Your task to perform on an android device: Go to Maps Image 0: 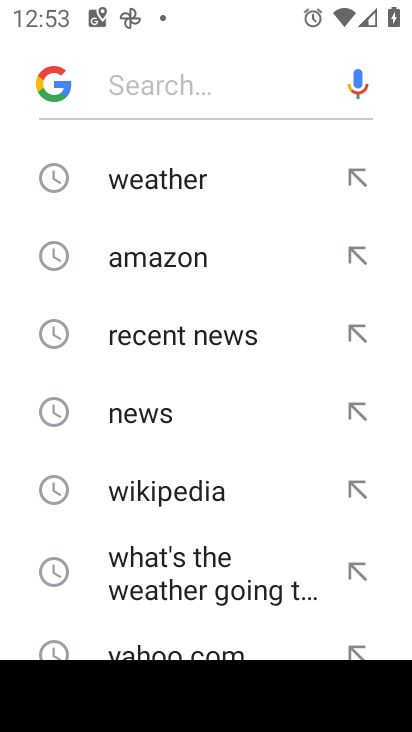
Step 0: press home button
Your task to perform on an android device: Go to Maps Image 1: 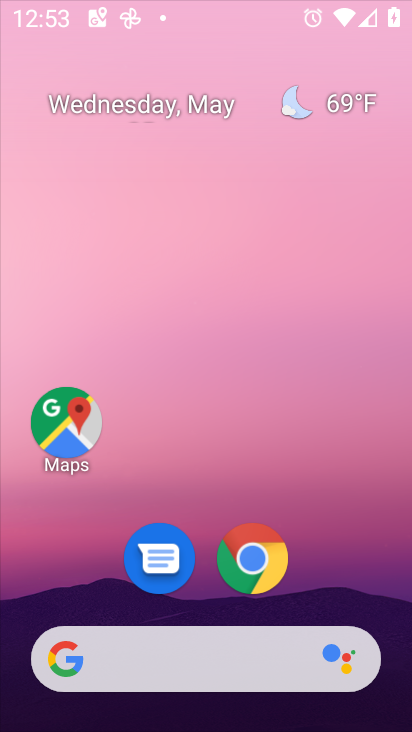
Step 1: press home button
Your task to perform on an android device: Go to Maps Image 2: 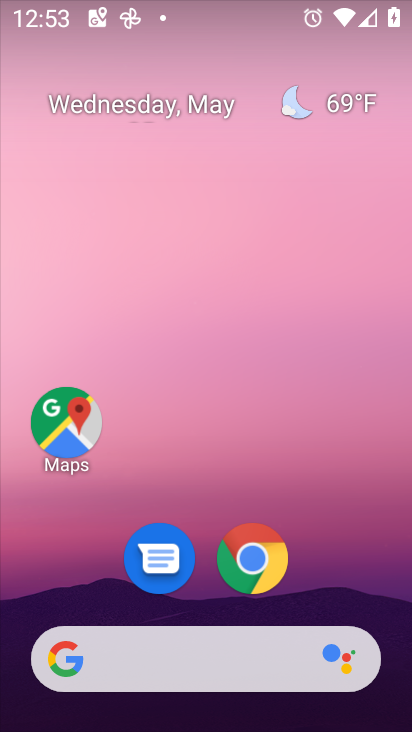
Step 2: drag from (373, 603) to (305, 11)
Your task to perform on an android device: Go to Maps Image 3: 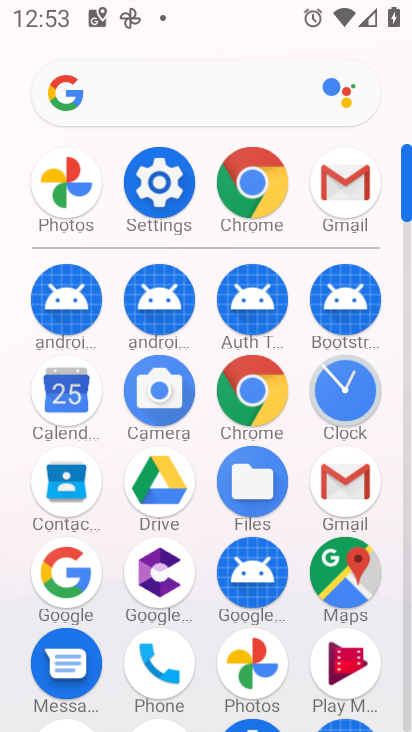
Step 3: click (369, 576)
Your task to perform on an android device: Go to Maps Image 4: 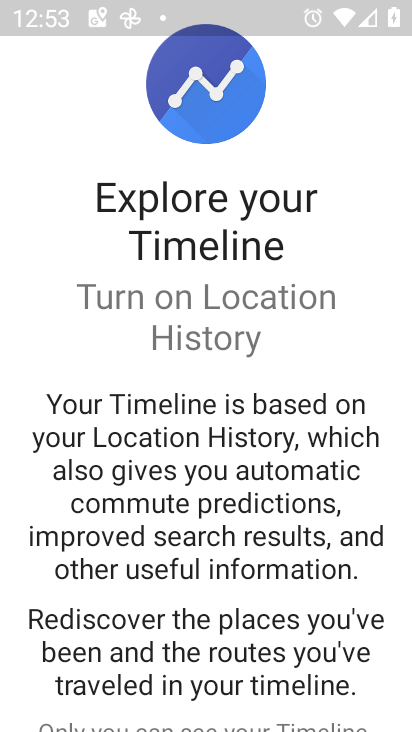
Step 4: press back button
Your task to perform on an android device: Go to Maps Image 5: 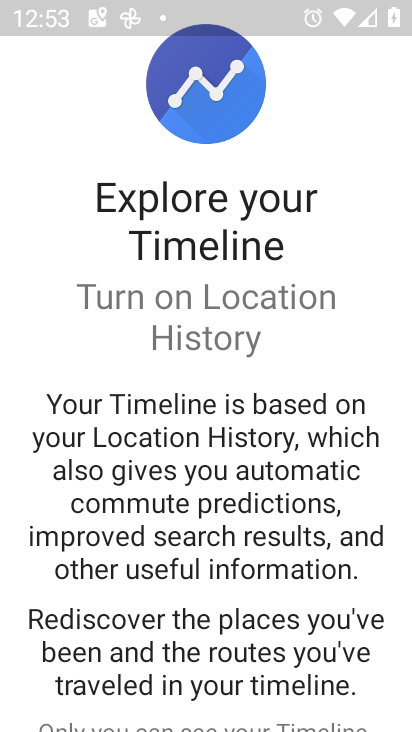
Step 5: press back button
Your task to perform on an android device: Go to Maps Image 6: 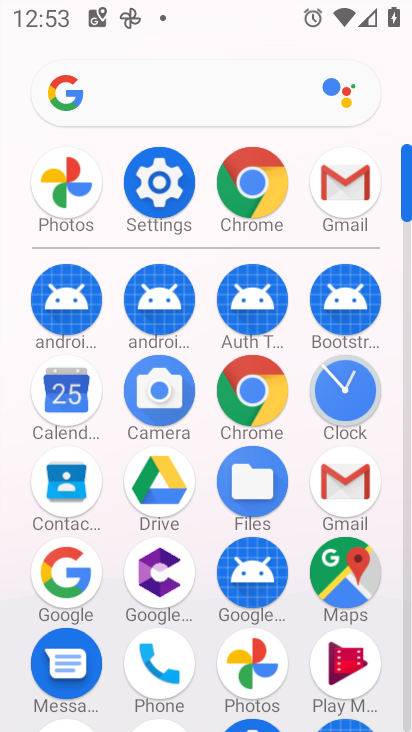
Step 6: click (356, 568)
Your task to perform on an android device: Go to Maps Image 7: 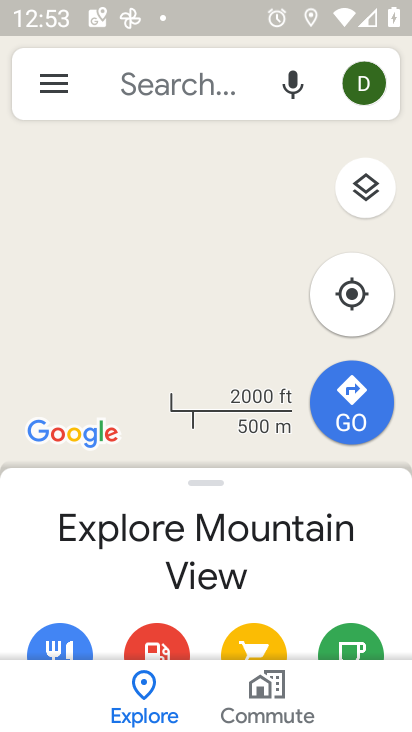
Step 7: task complete